Your task to perform on an android device: What is the recent news? Image 0: 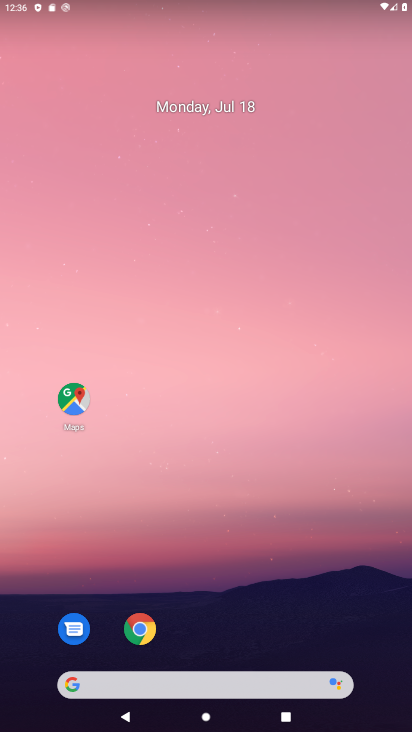
Step 0: drag from (6, 253) to (403, 302)
Your task to perform on an android device: What is the recent news? Image 1: 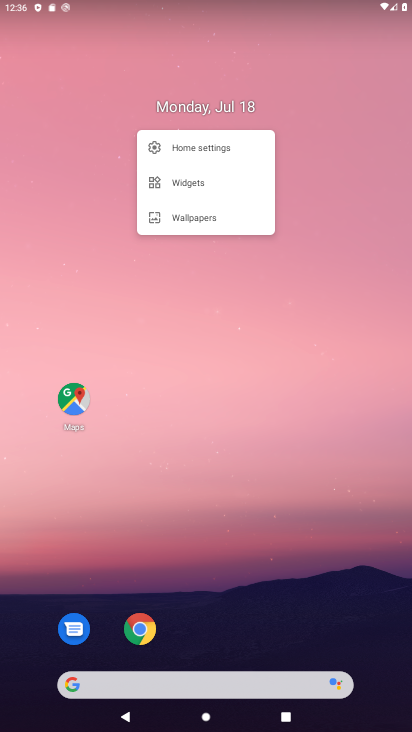
Step 1: drag from (7, 269) to (390, 309)
Your task to perform on an android device: What is the recent news? Image 2: 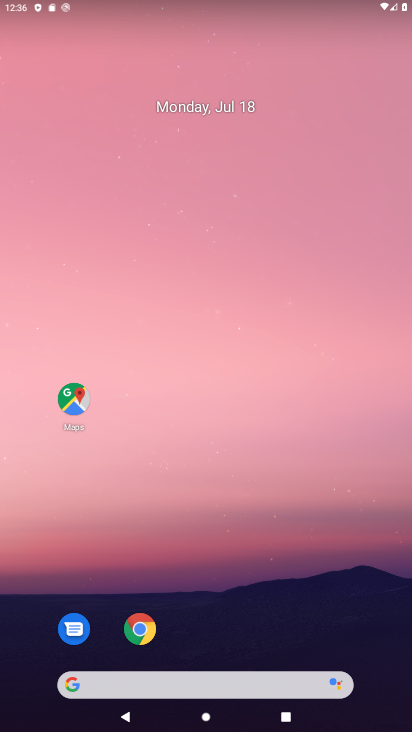
Step 2: drag from (2, 245) to (395, 413)
Your task to perform on an android device: What is the recent news? Image 3: 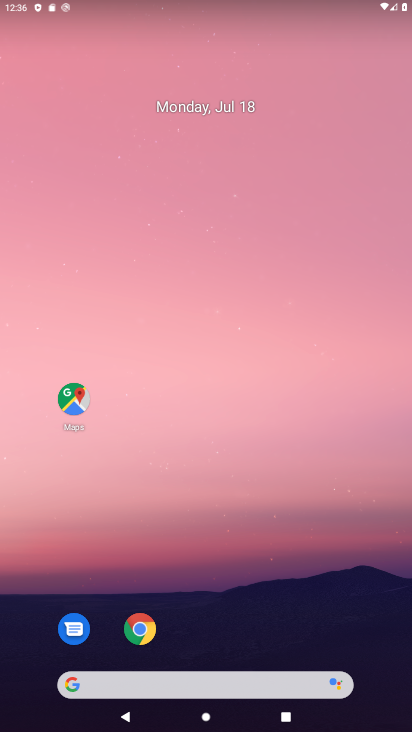
Step 3: drag from (7, 273) to (400, 351)
Your task to perform on an android device: What is the recent news? Image 4: 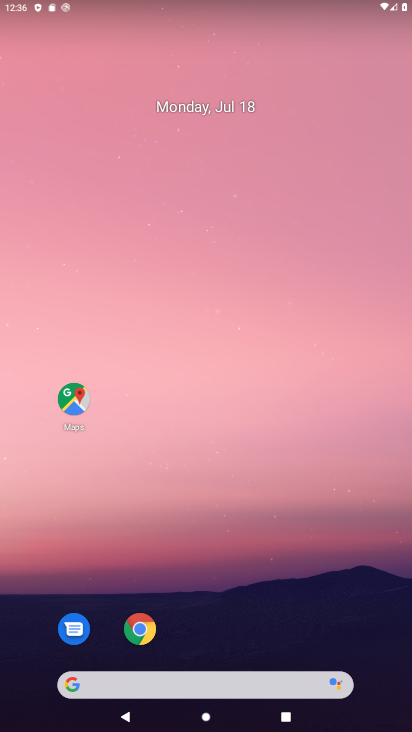
Step 4: drag from (15, 302) to (308, 304)
Your task to perform on an android device: What is the recent news? Image 5: 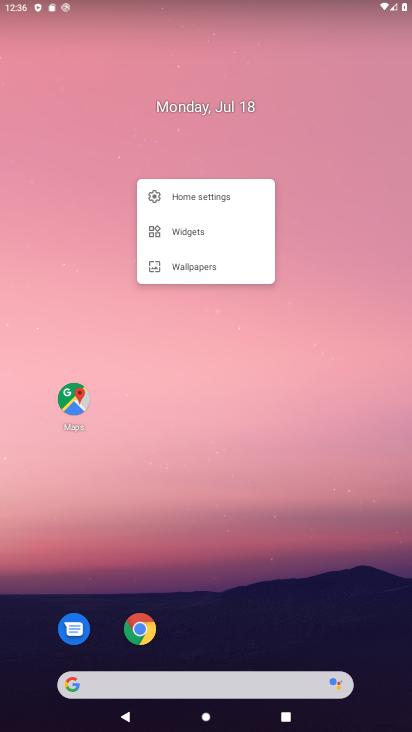
Step 5: click (0, 300)
Your task to perform on an android device: What is the recent news? Image 6: 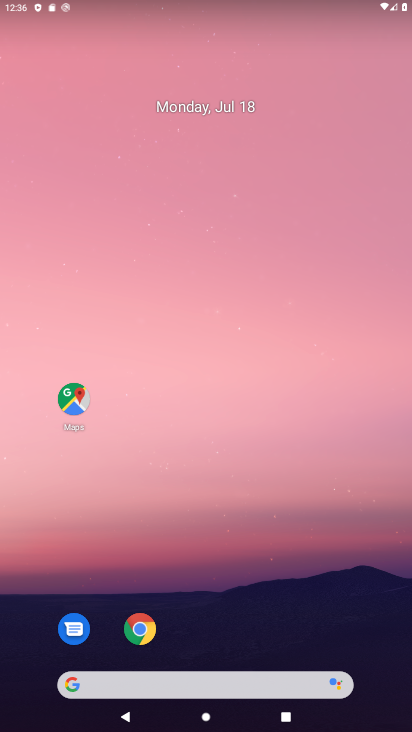
Step 6: task complete